Your task to perform on an android device: Open internet settings Image 0: 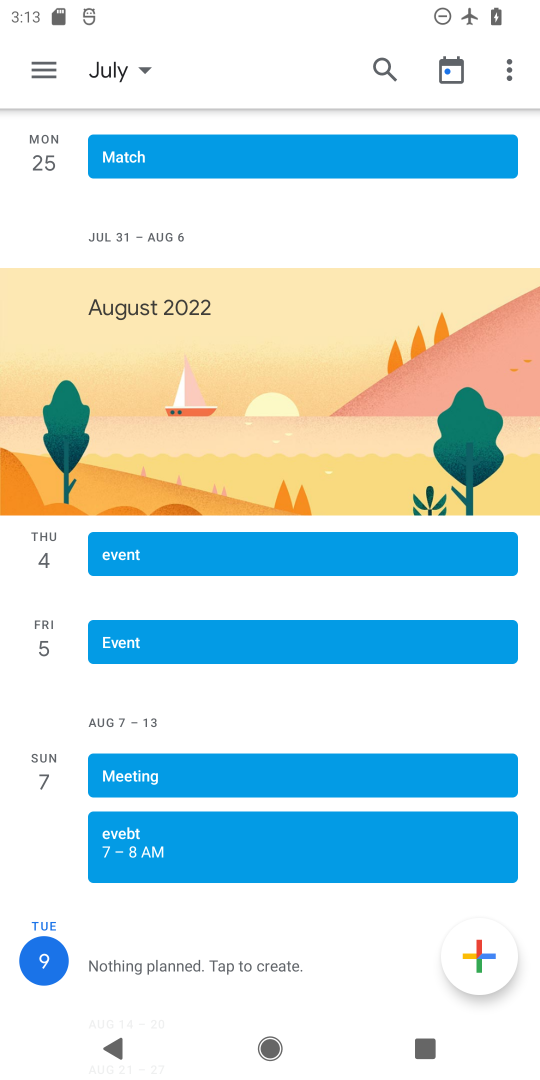
Step 0: press home button
Your task to perform on an android device: Open internet settings Image 1: 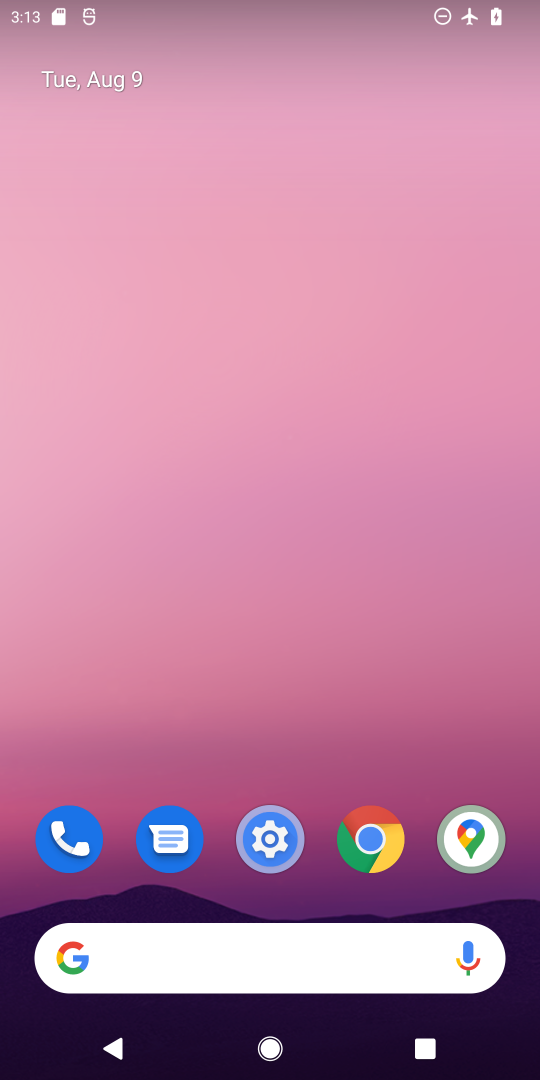
Step 1: click (274, 841)
Your task to perform on an android device: Open internet settings Image 2: 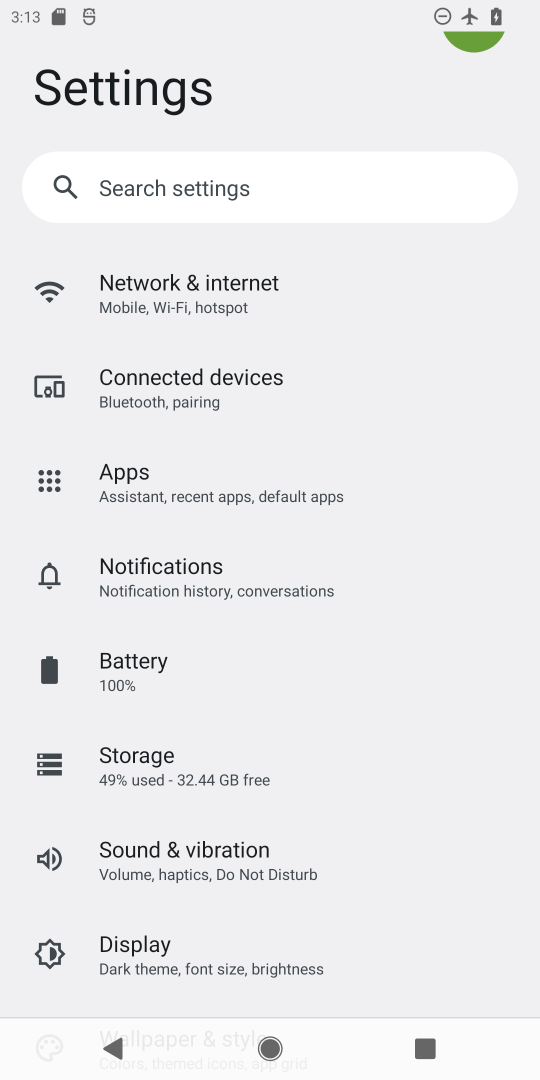
Step 2: click (199, 299)
Your task to perform on an android device: Open internet settings Image 3: 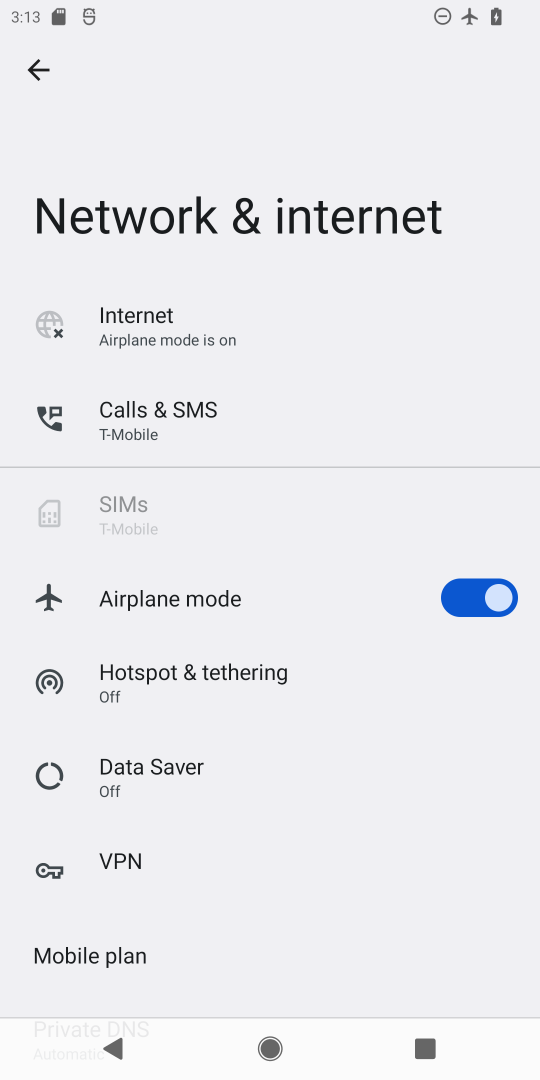
Step 3: task complete